Your task to perform on an android device: When is my next meeting? Image 0: 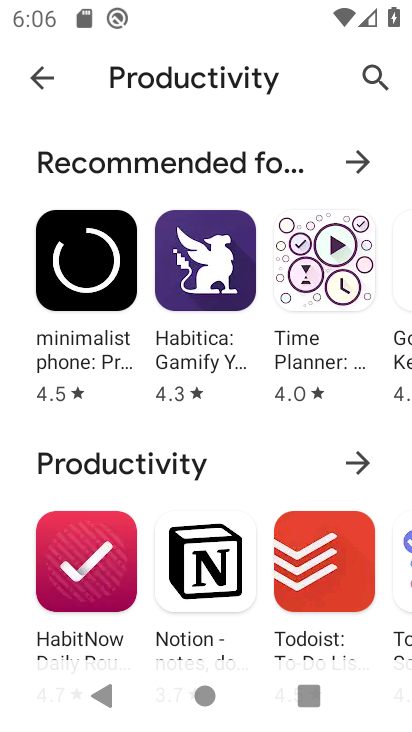
Step 0: press home button
Your task to perform on an android device: When is my next meeting? Image 1: 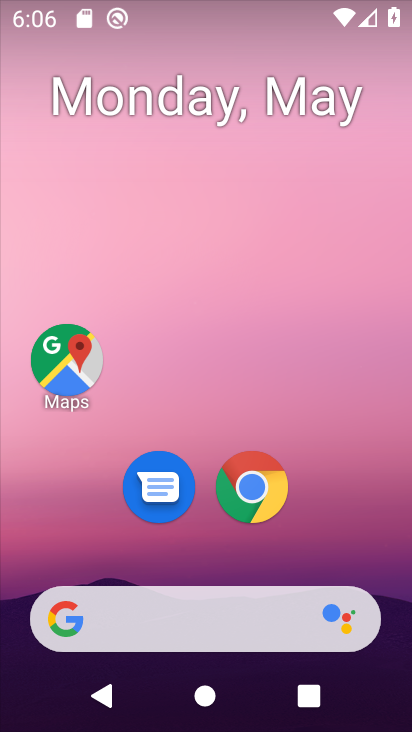
Step 1: drag from (211, 561) to (231, 65)
Your task to perform on an android device: When is my next meeting? Image 2: 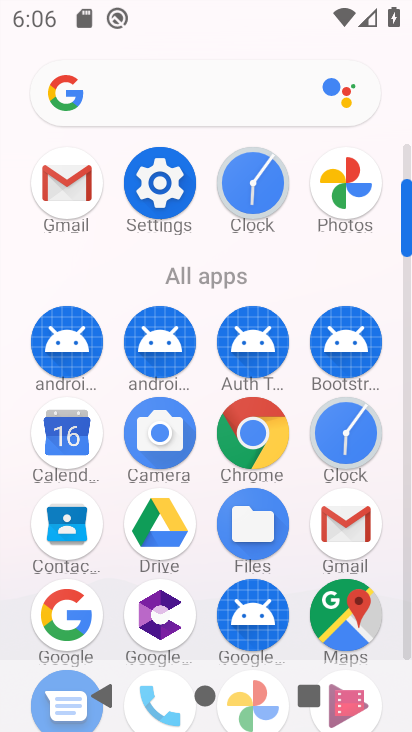
Step 2: click (67, 436)
Your task to perform on an android device: When is my next meeting? Image 3: 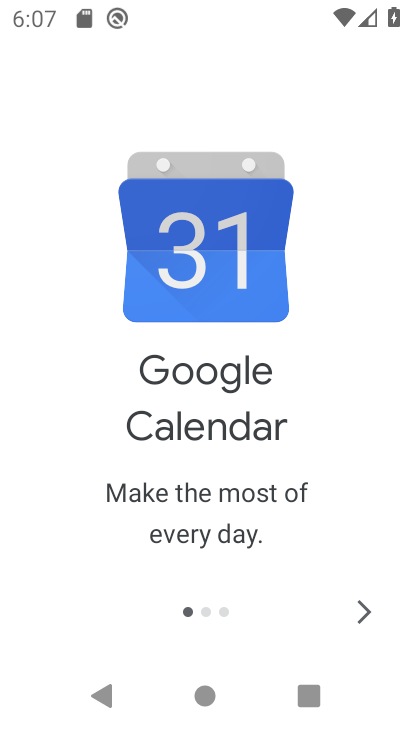
Step 3: click (358, 605)
Your task to perform on an android device: When is my next meeting? Image 4: 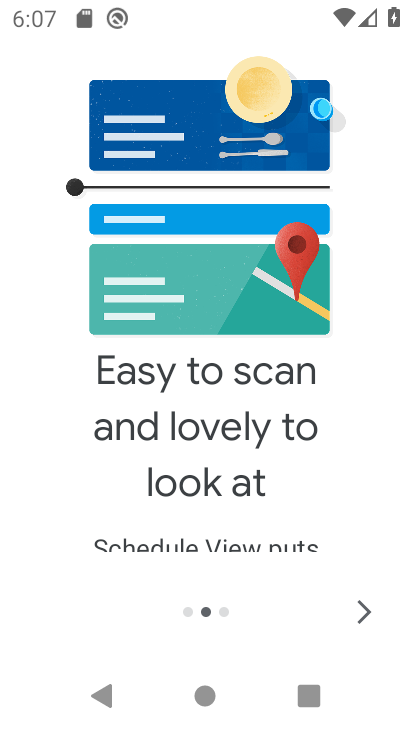
Step 4: click (358, 605)
Your task to perform on an android device: When is my next meeting? Image 5: 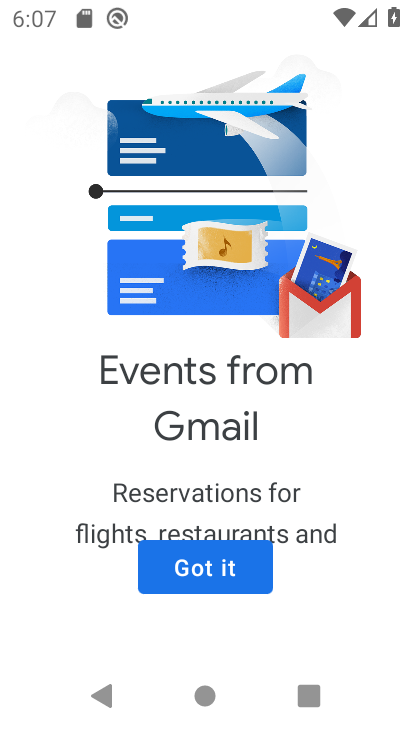
Step 5: click (208, 566)
Your task to perform on an android device: When is my next meeting? Image 6: 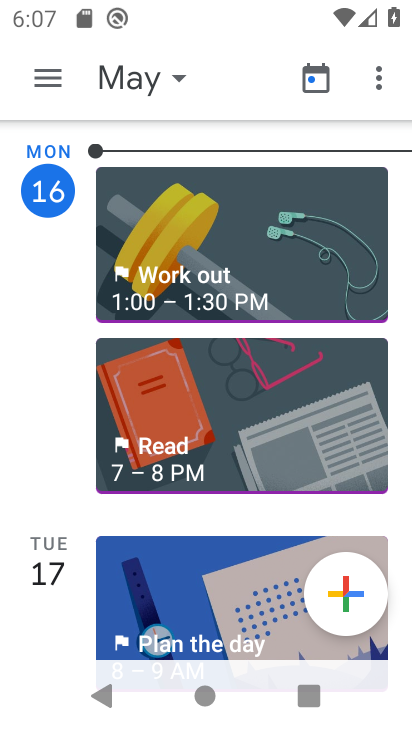
Step 6: task complete